Your task to perform on an android device: Open the phone app and click the voicemail tab. Image 0: 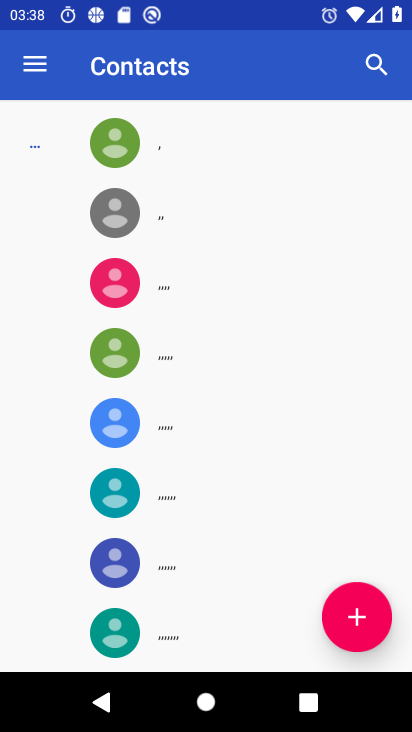
Step 0: press back button
Your task to perform on an android device: Open the phone app and click the voicemail tab. Image 1: 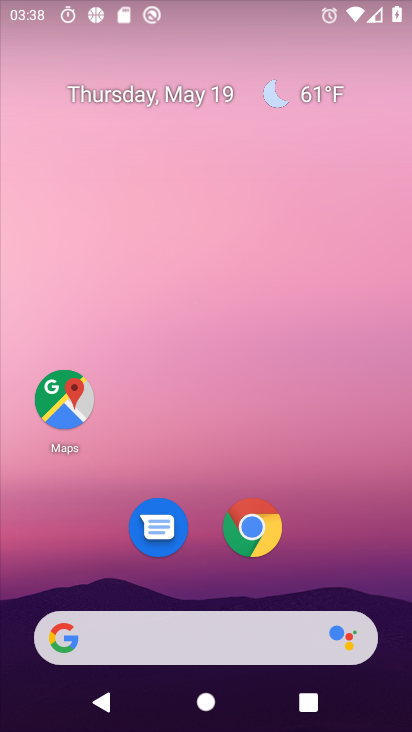
Step 1: drag from (204, 541) to (268, 78)
Your task to perform on an android device: Open the phone app and click the voicemail tab. Image 2: 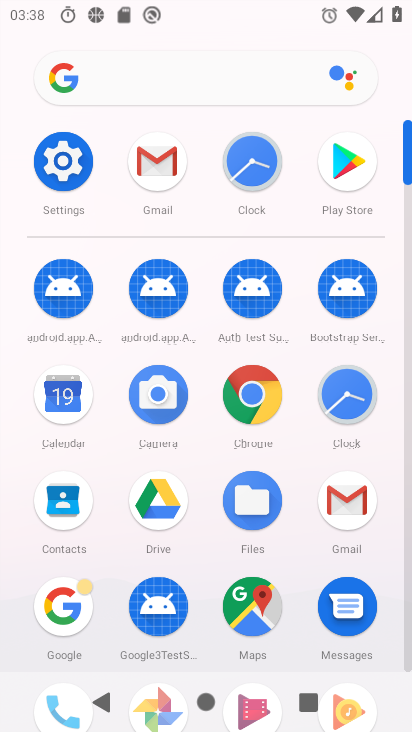
Step 2: drag from (160, 579) to (244, 160)
Your task to perform on an android device: Open the phone app and click the voicemail tab. Image 3: 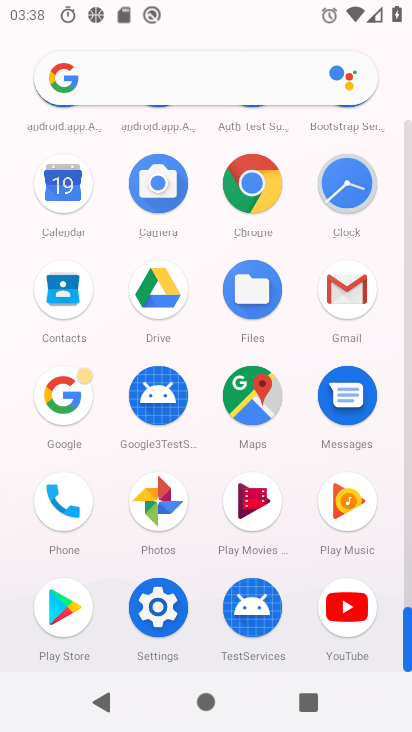
Step 3: click (54, 497)
Your task to perform on an android device: Open the phone app and click the voicemail tab. Image 4: 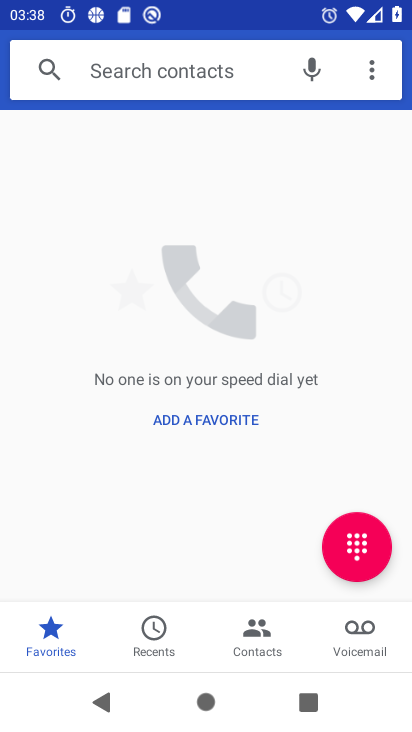
Step 4: click (374, 639)
Your task to perform on an android device: Open the phone app and click the voicemail tab. Image 5: 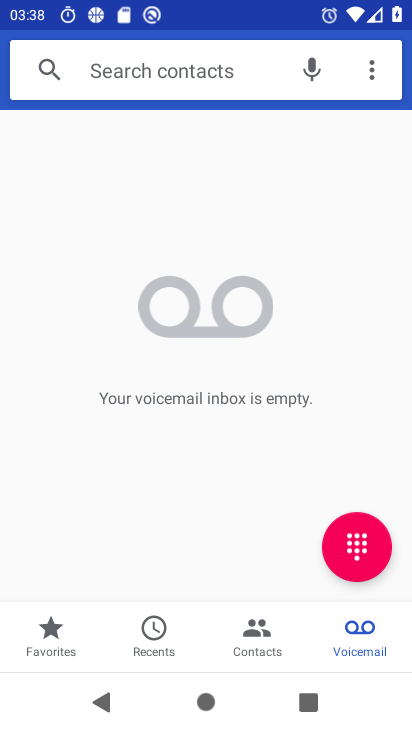
Step 5: task complete